Your task to perform on an android device: add a label to a message in the gmail app Image 0: 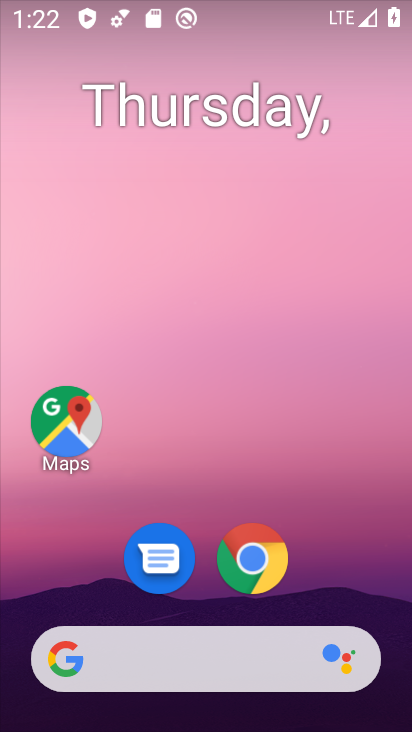
Step 0: drag from (358, 583) to (334, 56)
Your task to perform on an android device: add a label to a message in the gmail app Image 1: 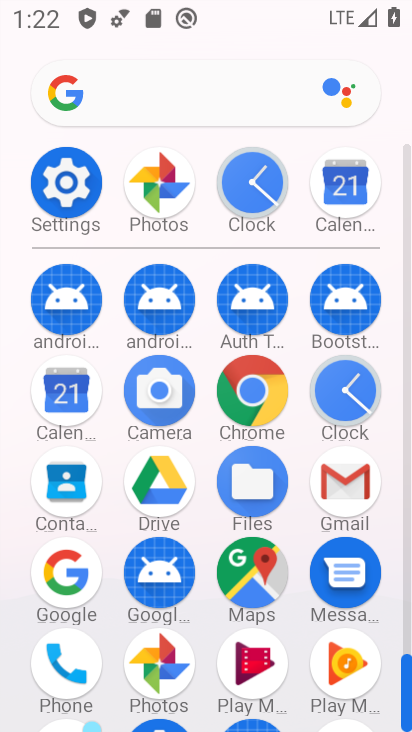
Step 1: click (336, 484)
Your task to perform on an android device: add a label to a message in the gmail app Image 2: 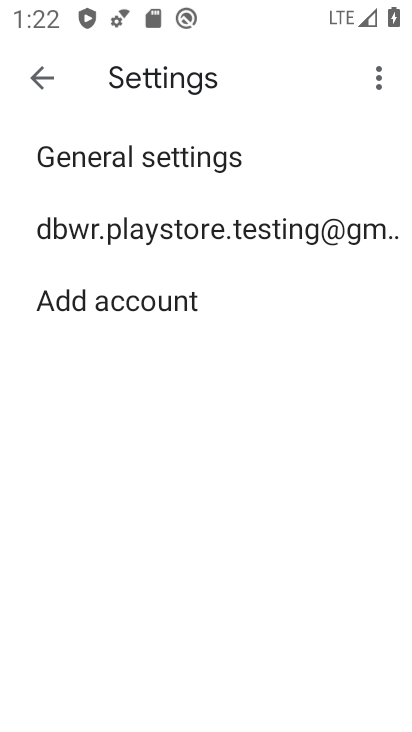
Step 2: click (50, 84)
Your task to perform on an android device: add a label to a message in the gmail app Image 3: 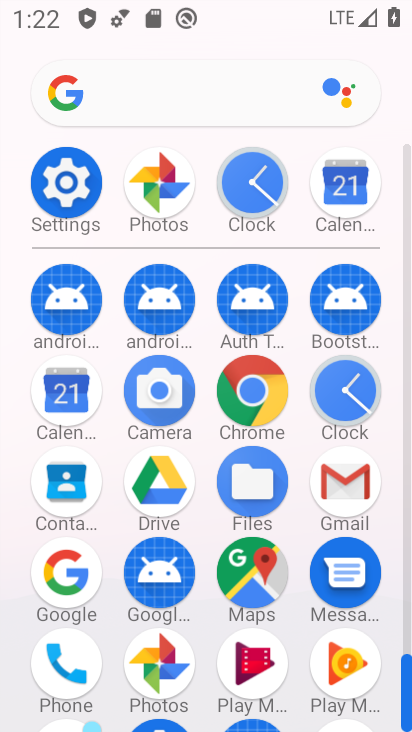
Step 3: click (50, 84)
Your task to perform on an android device: add a label to a message in the gmail app Image 4: 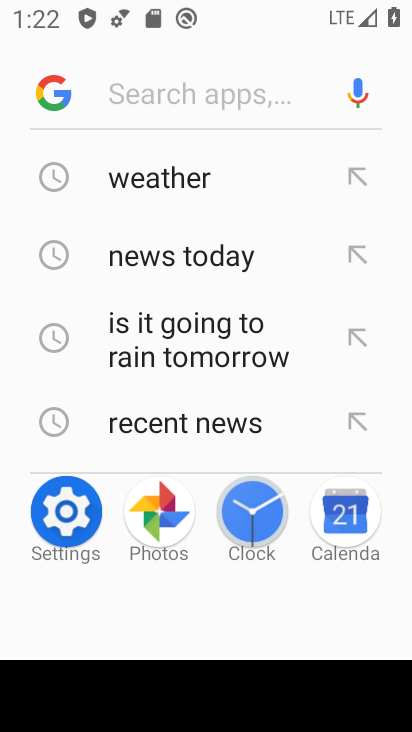
Step 4: press home button
Your task to perform on an android device: add a label to a message in the gmail app Image 5: 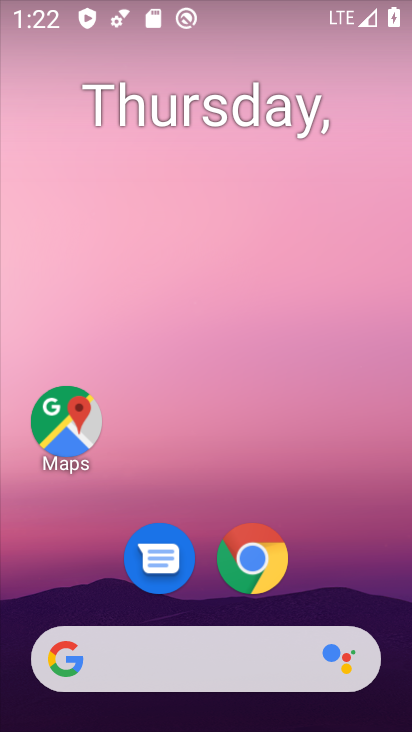
Step 5: drag from (339, 513) to (297, 80)
Your task to perform on an android device: add a label to a message in the gmail app Image 6: 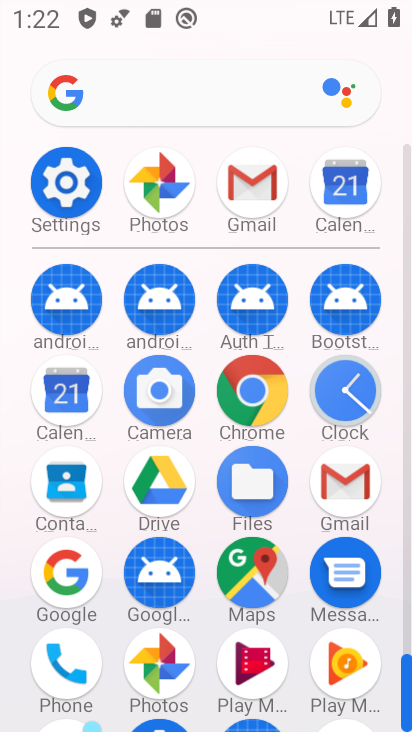
Step 6: click (342, 487)
Your task to perform on an android device: add a label to a message in the gmail app Image 7: 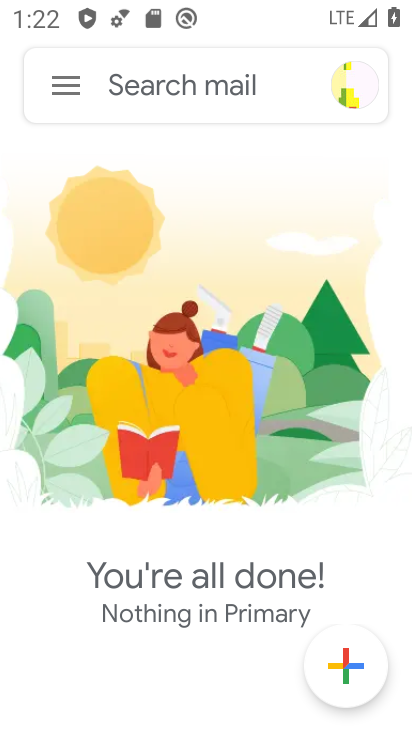
Step 7: click (67, 83)
Your task to perform on an android device: add a label to a message in the gmail app Image 8: 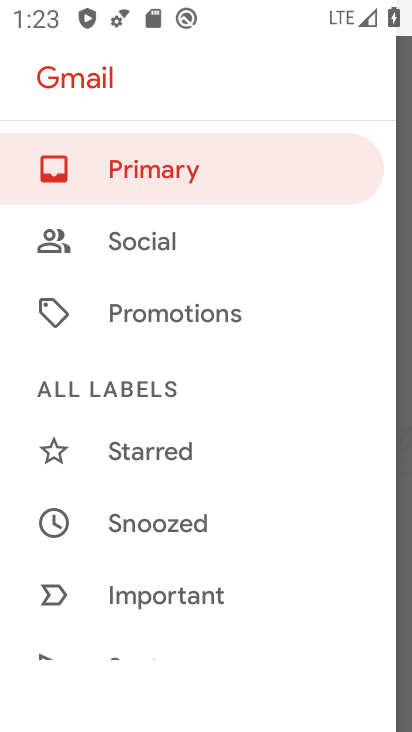
Step 8: task complete